Your task to perform on an android device: Open the phone app and click the voicemail tab. Image 0: 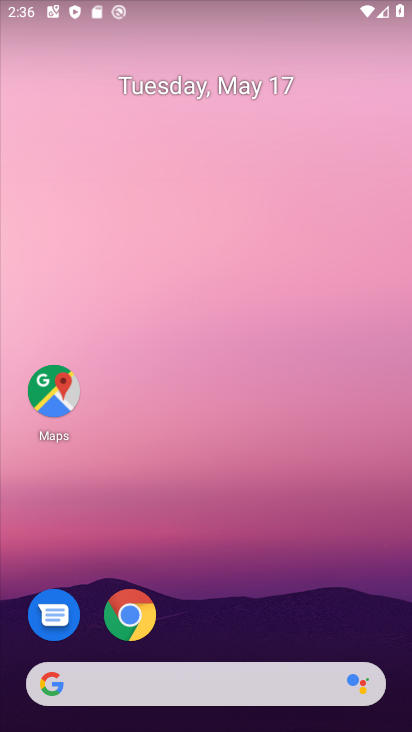
Step 0: drag from (230, 383) to (230, 215)
Your task to perform on an android device: Open the phone app and click the voicemail tab. Image 1: 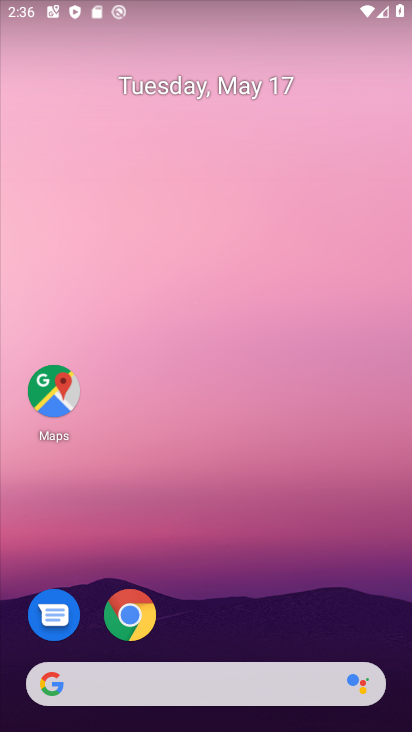
Step 1: drag from (221, 674) to (212, 138)
Your task to perform on an android device: Open the phone app and click the voicemail tab. Image 2: 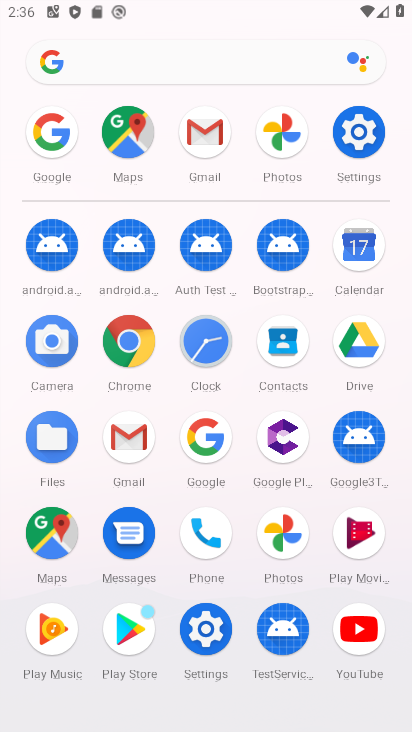
Step 2: click (194, 533)
Your task to perform on an android device: Open the phone app and click the voicemail tab. Image 3: 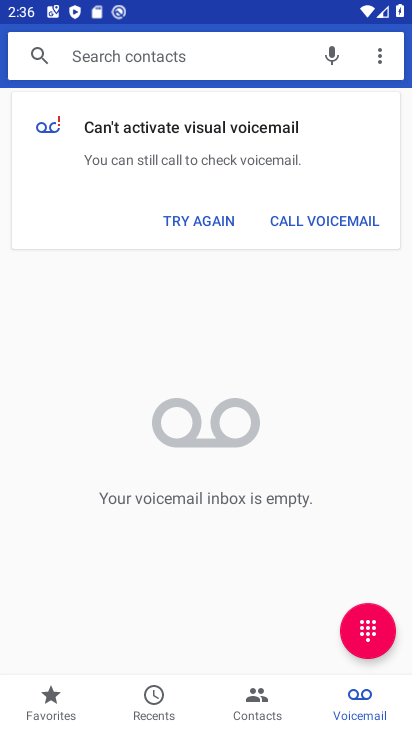
Step 3: task complete